Your task to perform on an android device: Is it going to rain this weekend? Image 0: 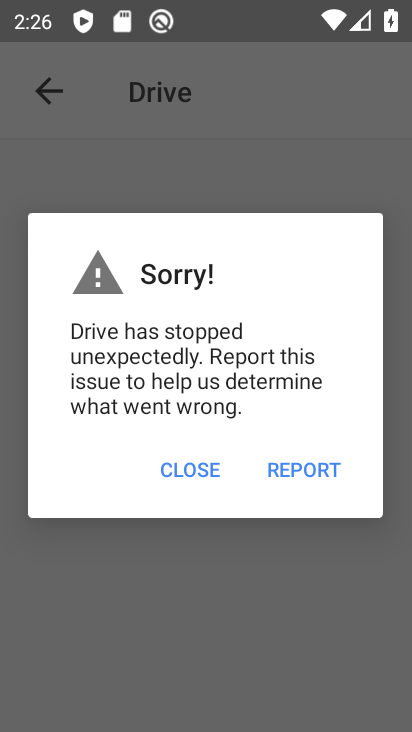
Step 0: press home button
Your task to perform on an android device: Is it going to rain this weekend? Image 1: 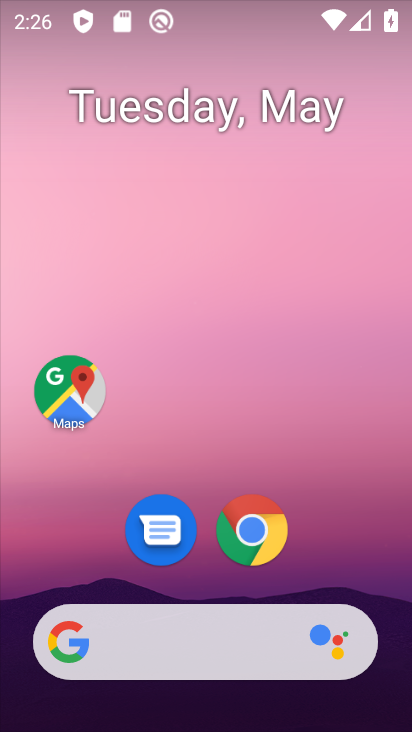
Step 1: click (154, 635)
Your task to perform on an android device: Is it going to rain this weekend? Image 2: 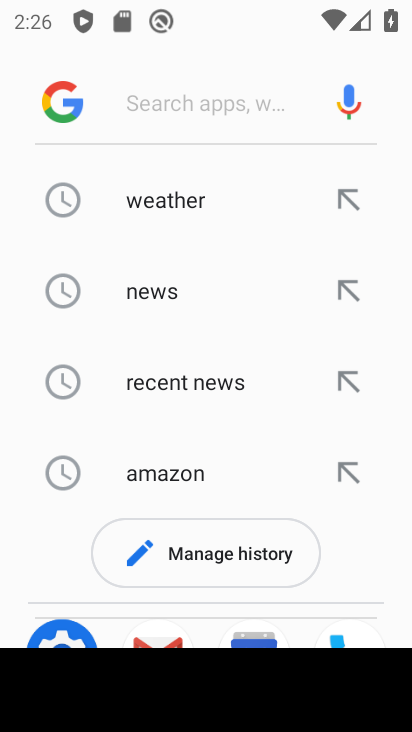
Step 2: click (90, 217)
Your task to perform on an android device: Is it going to rain this weekend? Image 3: 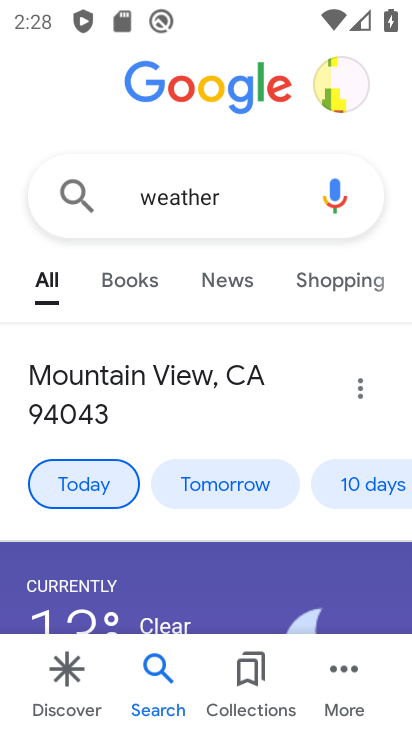
Step 3: click (376, 490)
Your task to perform on an android device: Is it going to rain this weekend? Image 4: 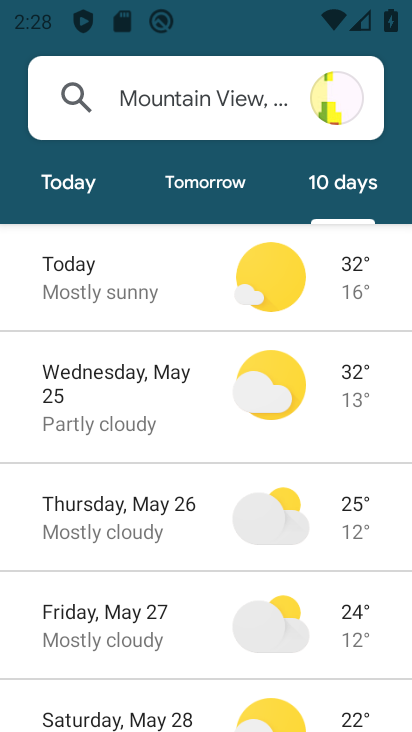
Step 4: task complete